Your task to perform on an android device: Do I have any events tomorrow? Image 0: 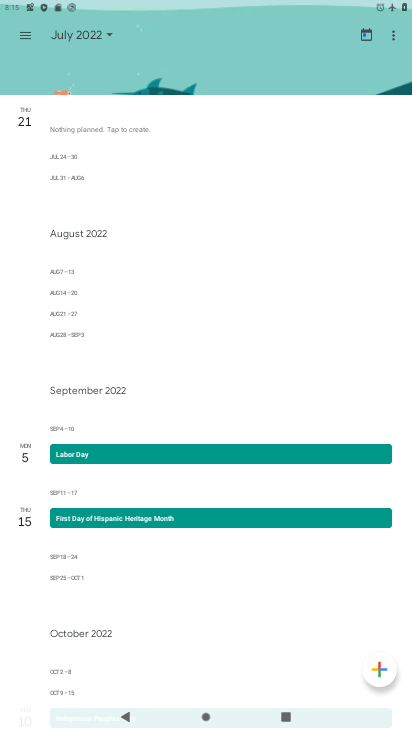
Step 0: press home button
Your task to perform on an android device: Do I have any events tomorrow? Image 1: 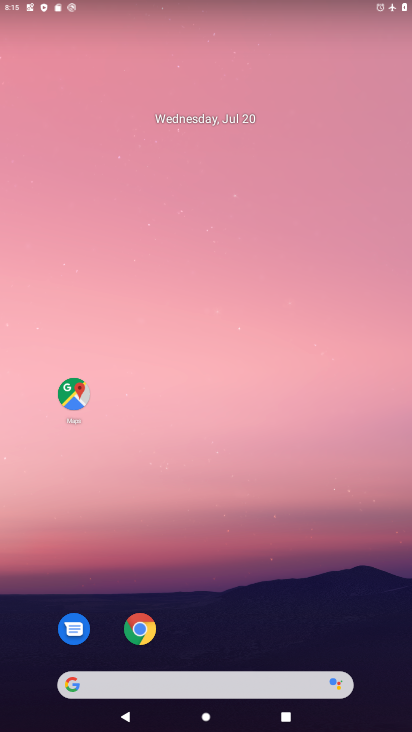
Step 1: drag from (189, 462) to (213, 154)
Your task to perform on an android device: Do I have any events tomorrow? Image 2: 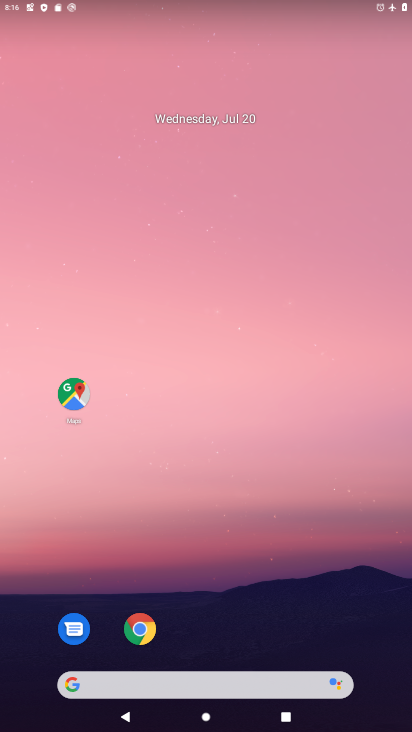
Step 2: drag from (194, 586) to (246, 46)
Your task to perform on an android device: Do I have any events tomorrow? Image 3: 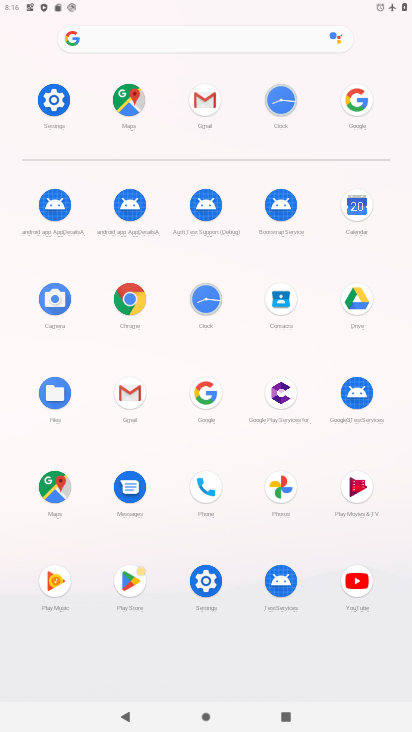
Step 3: click (360, 204)
Your task to perform on an android device: Do I have any events tomorrow? Image 4: 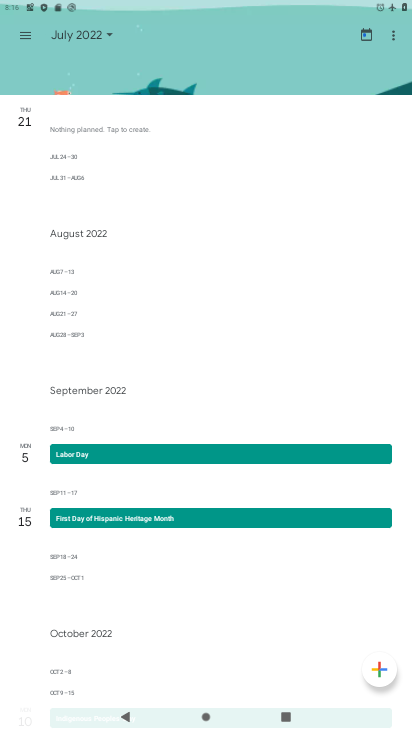
Step 4: task complete